Your task to perform on an android device: Go to Google Image 0: 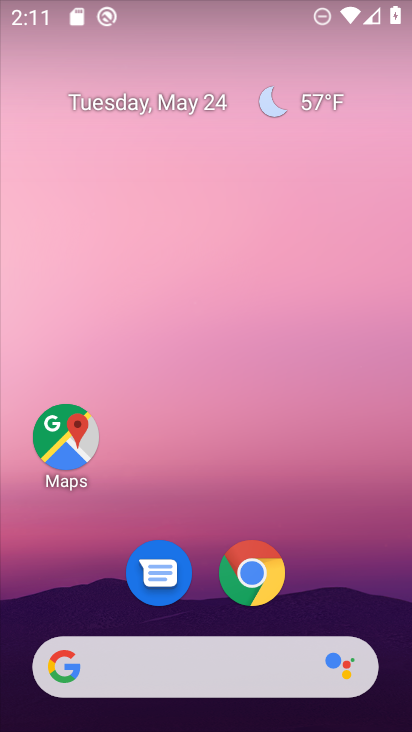
Step 0: drag from (343, 557) to (291, 143)
Your task to perform on an android device: Go to Google Image 1: 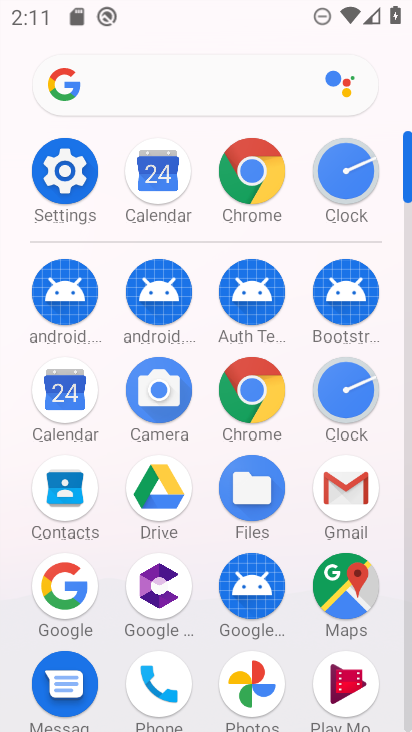
Step 1: click (72, 595)
Your task to perform on an android device: Go to Google Image 2: 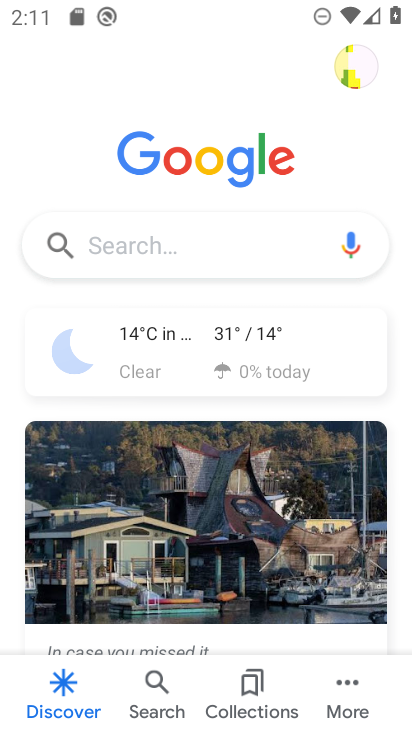
Step 2: task complete